Your task to perform on an android device: Go to network settings Image 0: 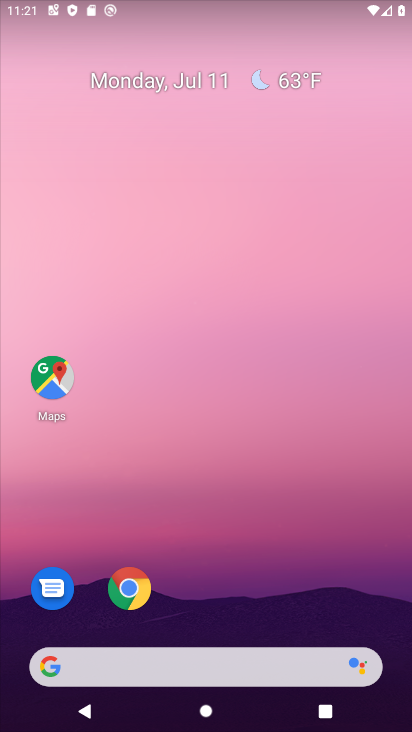
Step 0: drag from (253, 649) to (211, 155)
Your task to perform on an android device: Go to network settings Image 1: 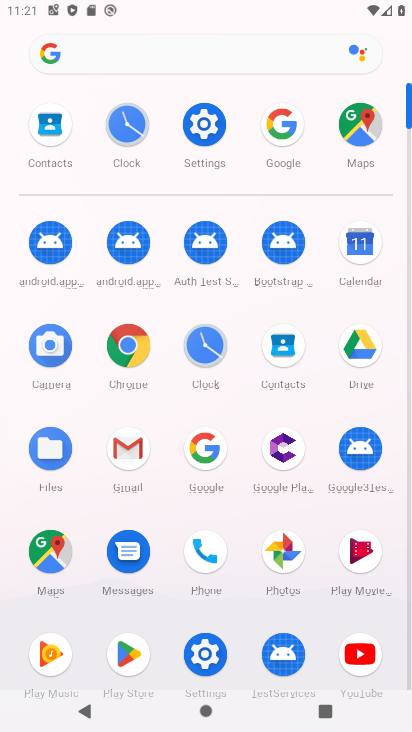
Step 1: click (199, 122)
Your task to perform on an android device: Go to network settings Image 2: 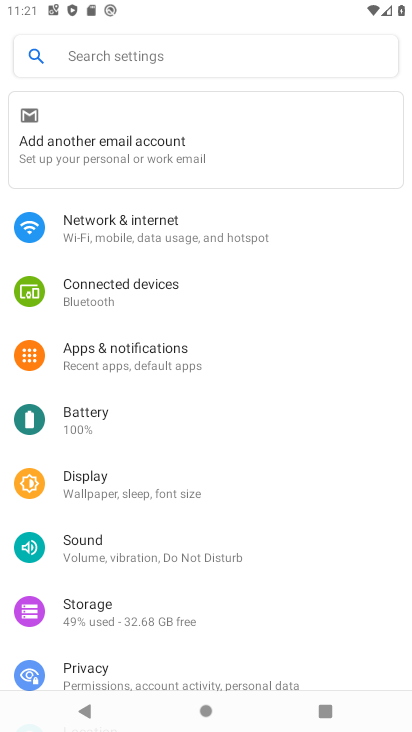
Step 2: click (95, 233)
Your task to perform on an android device: Go to network settings Image 3: 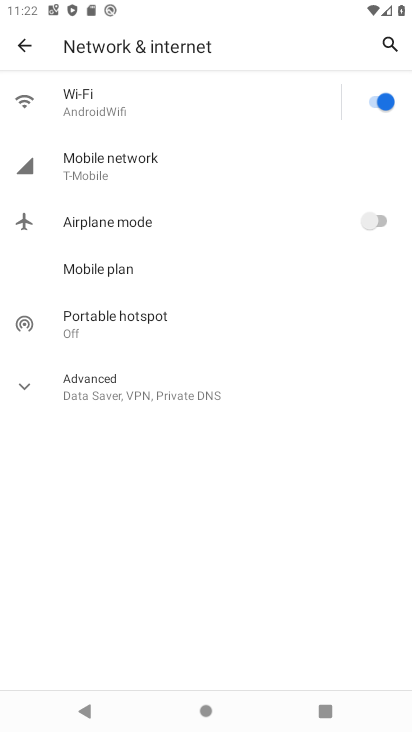
Step 3: click (108, 159)
Your task to perform on an android device: Go to network settings Image 4: 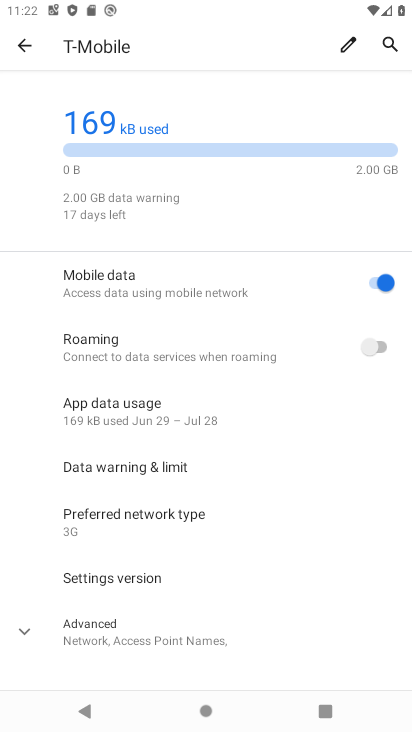
Step 4: task complete